Your task to perform on an android device: Open the Play Movies app and select the watchlist tab. Image 0: 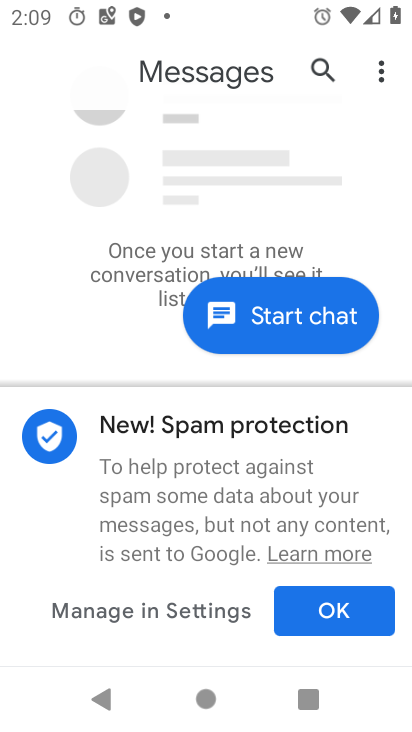
Step 0: press home button
Your task to perform on an android device: Open the Play Movies app and select the watchlist tab. Image 1: 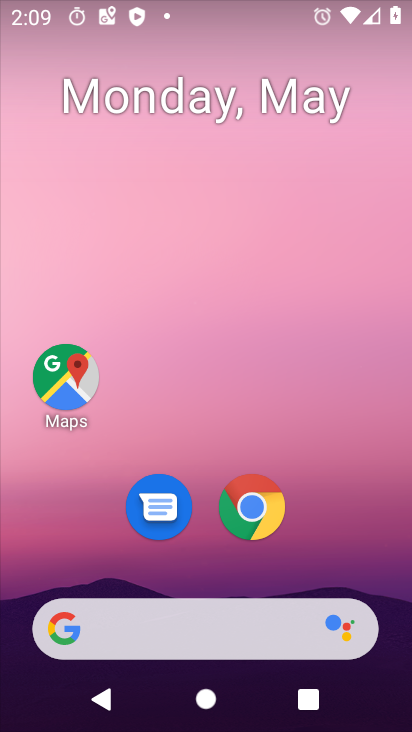
Step 1: drag from (248, 676) to (251, 165)
Your task to perform on an android device: Open the Play Movies app and select the watchlist tab. Image 2: 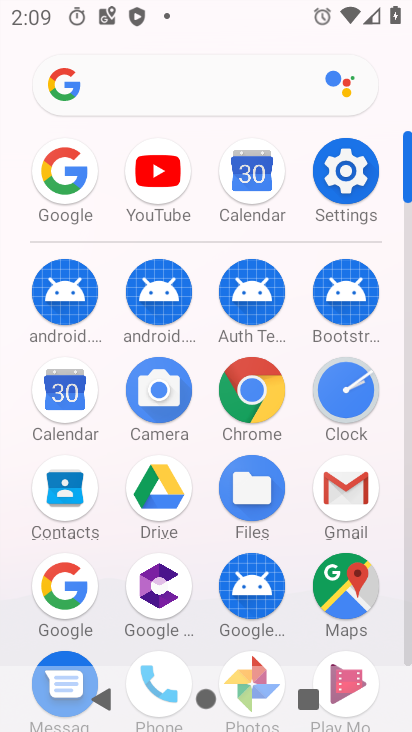
Step 2: drag from (297, 624) to (319, 192)
Your task to perform on an android device: Open the Play Movies app and select the watchlist tab. Image 3: 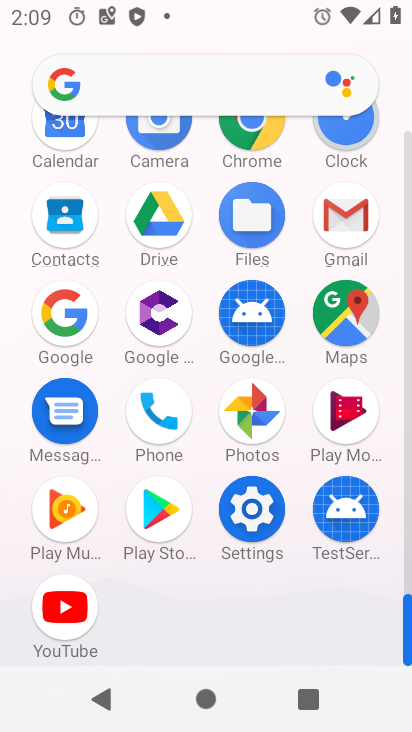
Step 3: click (346, 412)
Your task to perform on an android device: Open the Play Movies app and select the watchlist tab. Image 4: 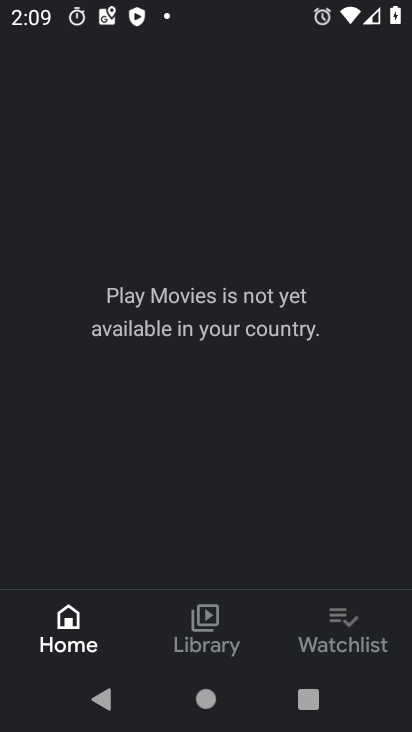
Step 4: click (340, 639)
Your task to perform on an android device: Open the Play Movies app and select the watchlist tab. Image 5: 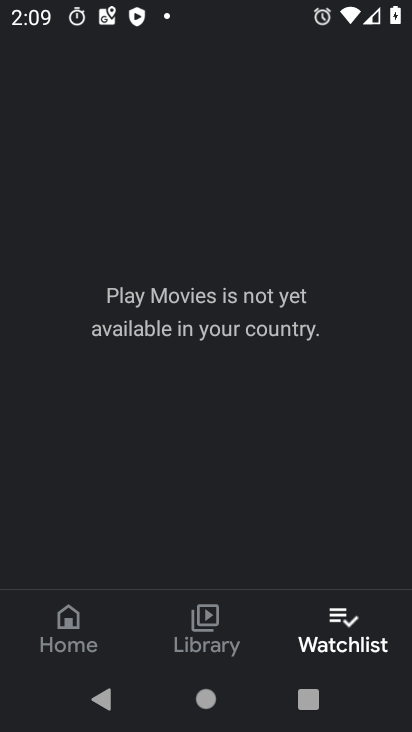
Step 5: task complete